Your task to perform on an android device: add a contact Image 0: 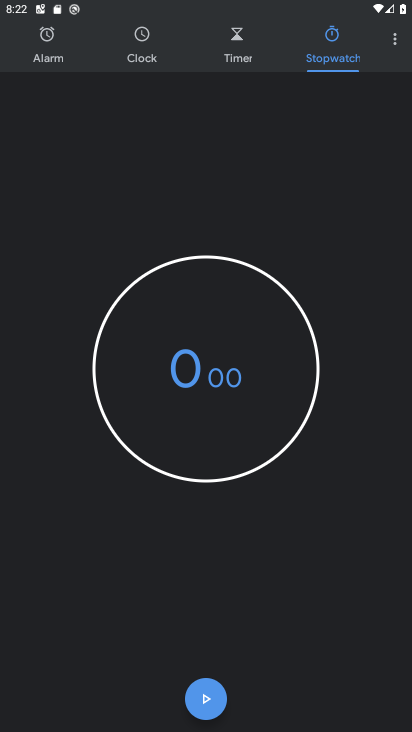
Step 0: press home button
Your task to perform on an android device: add a contact Image 1: 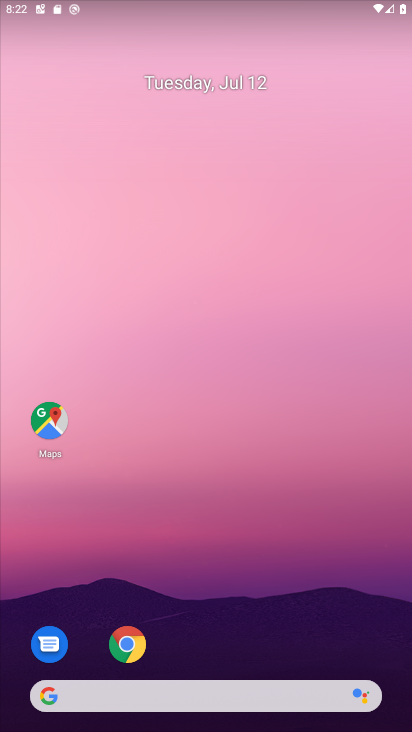
Step 1: drag from (355, 481) to (407, 138)
Your task to perform on an android device: add a contact Image 2: 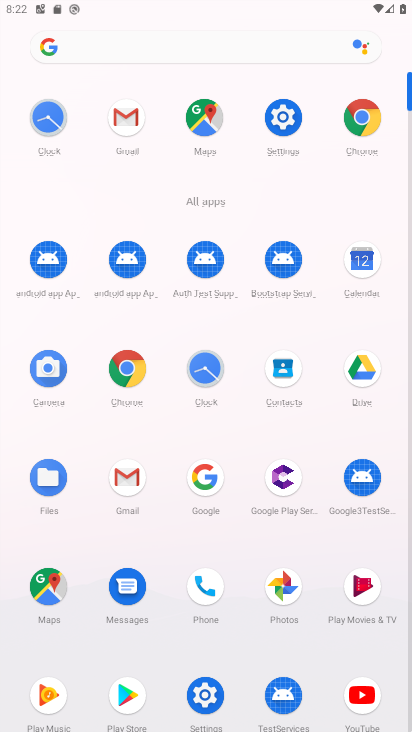
Step 2: click (215, 583)
Your task to perform on an android device: add a contact Image 3: 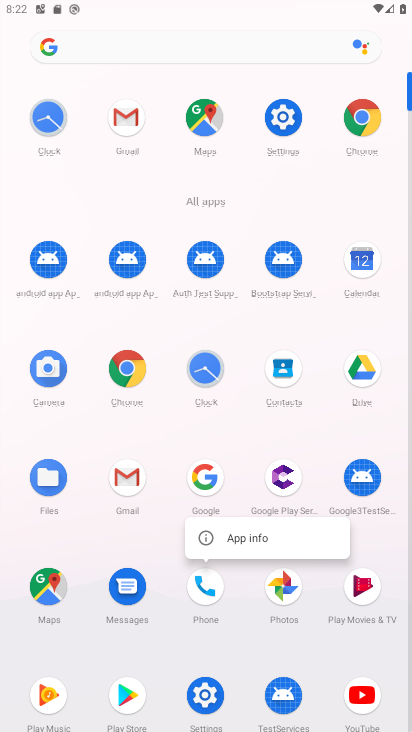
Step 3: click (202, 593)
Your task to perform on an android device: add a contact Image 4: 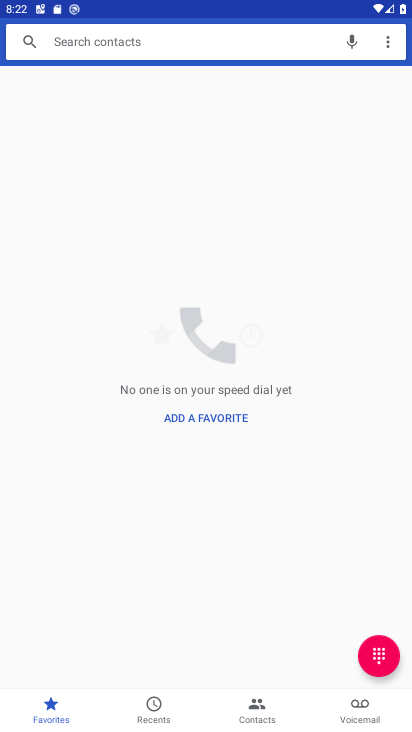
Step 4: click (263, 705)
Your task to perform on an android device: add a contact Image 5: 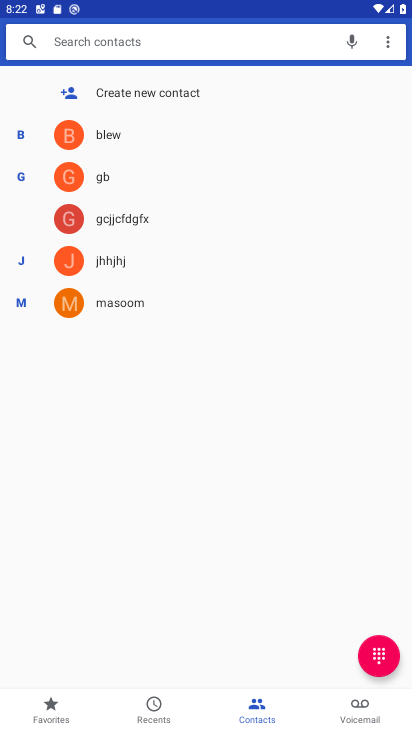
Step 5: click (127, 92)
Your task to perform on an android device: add a contact Image 6: 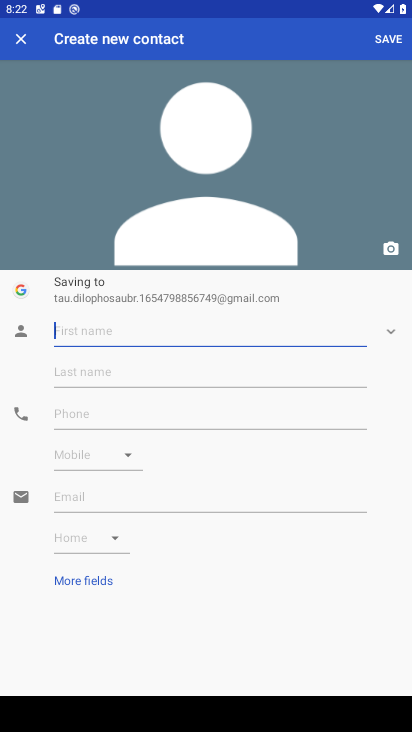
Step 6: type "tgbb"
Your task to perform on an android device: add a contact Image 7: 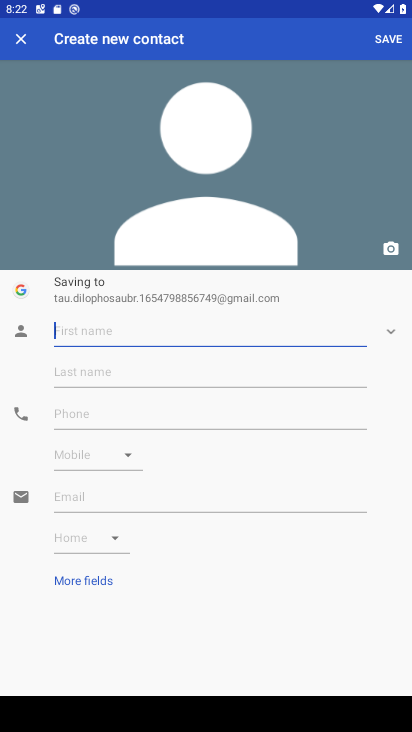
Step 7: click (103, 423)
Your task to perform on an android device: add a contact Image 8: 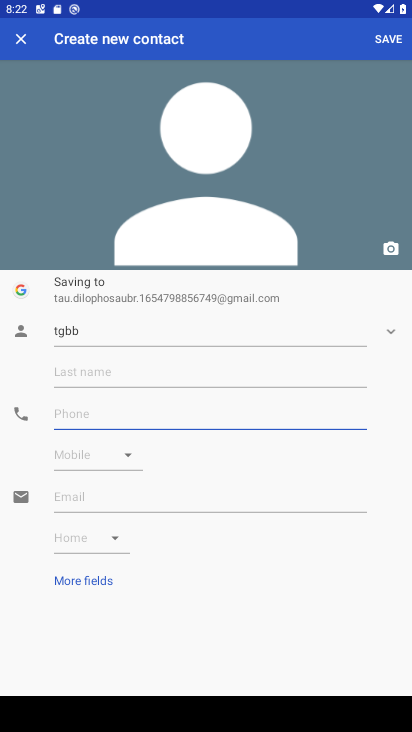
Step 8: type "87665432"
Your task to perform on an android device: add a contact Image 9: 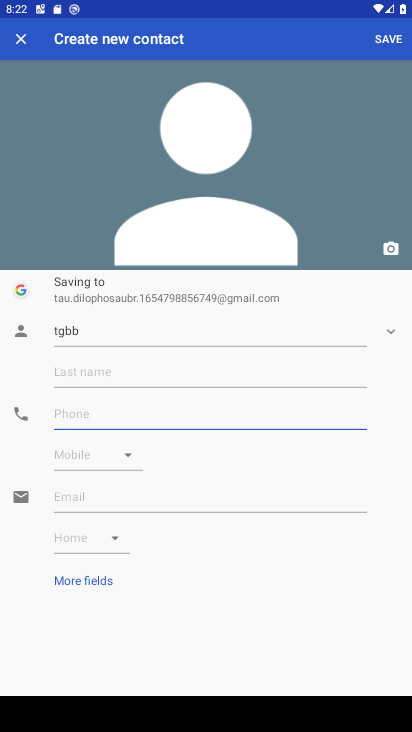
Step 9: click (372, 35)
Your task to perform on an android device: add a contact Image 10: 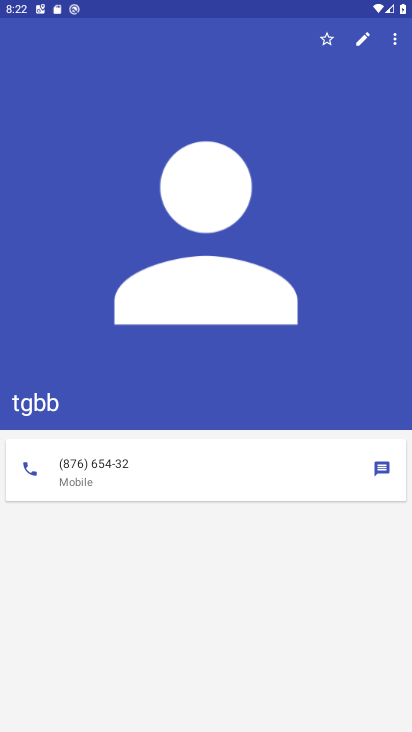
Step 10: task complete